Your task to perform on an android device: all mails in gmail Image 0: 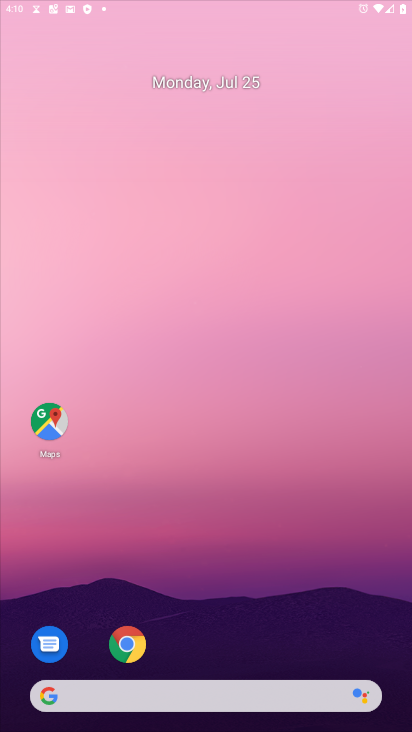
Step 0: press home button
Your task to perform on an android device: all mails in gmail Image 1: 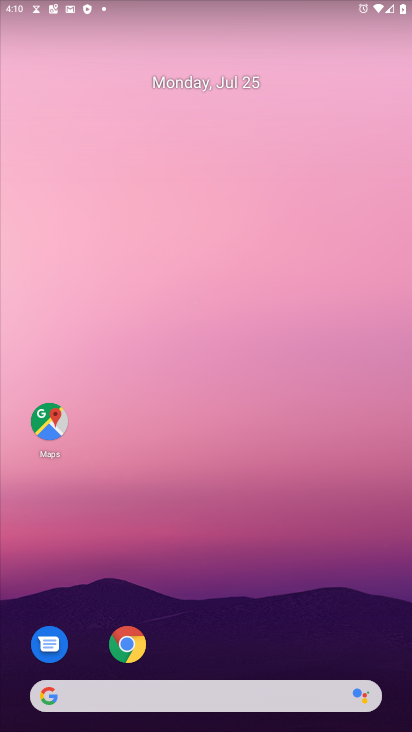
Step 1: press home button
Your task to perform on an android device: all mails in gmail Image 2: 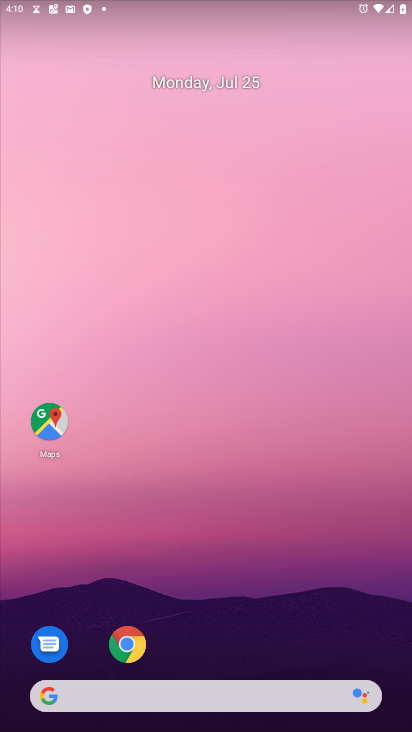
Step 2: drag from (276, 616) to (258, 111)
Your task to perform on an android device: all mails in gmail Image 3: 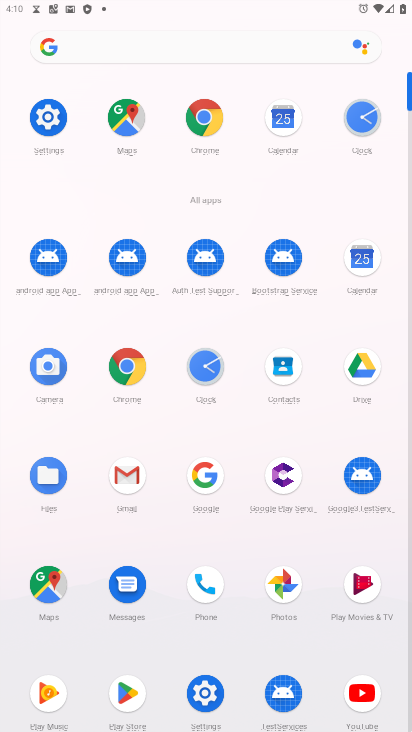
Step 3: click (129, 477)
Your task to perform on an android device: all mails in gmail Image 4: 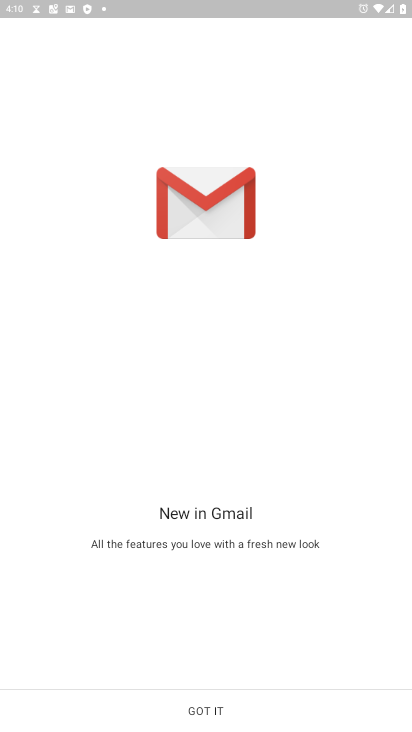
Step 4: click (199, 710)
Your task to perform on an android device: all mails in gmail Image 5: 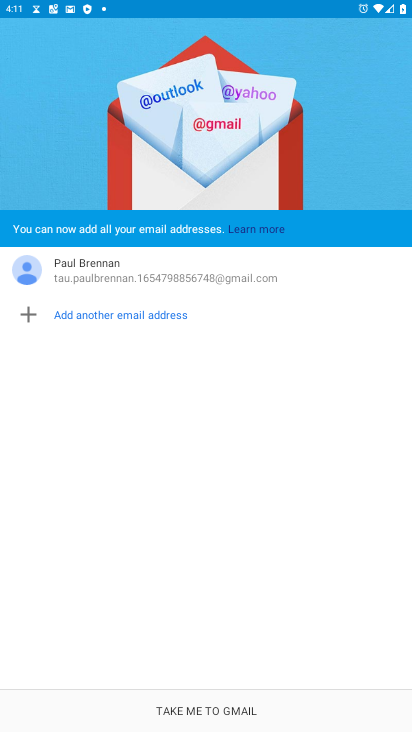
Step 5: click (214, 712)
Your task to perform on an android device: all mails in gmail Image 6: 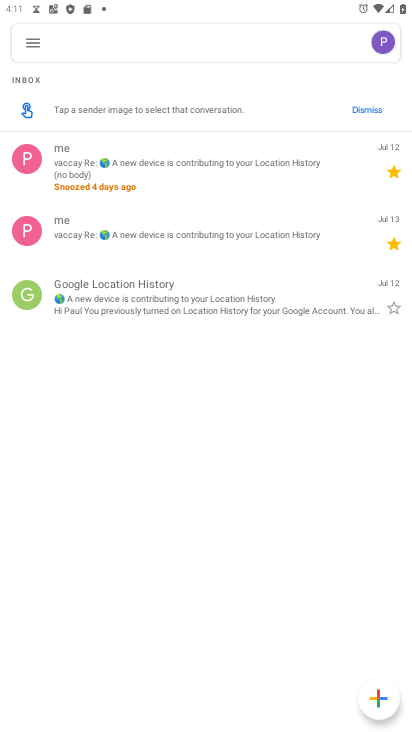
Step 6: click (28, 45)
Your task to perform on an android device: all mails in gmail Image 7: 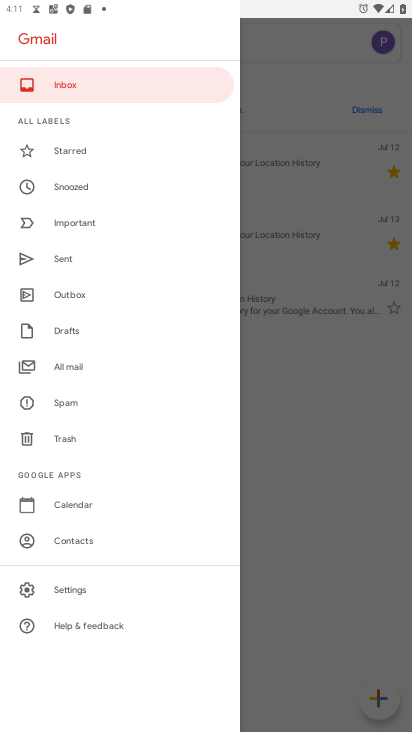
Step 7: click (65, 359)
Your task to perform on an android device: all mails in gmail Image 8: 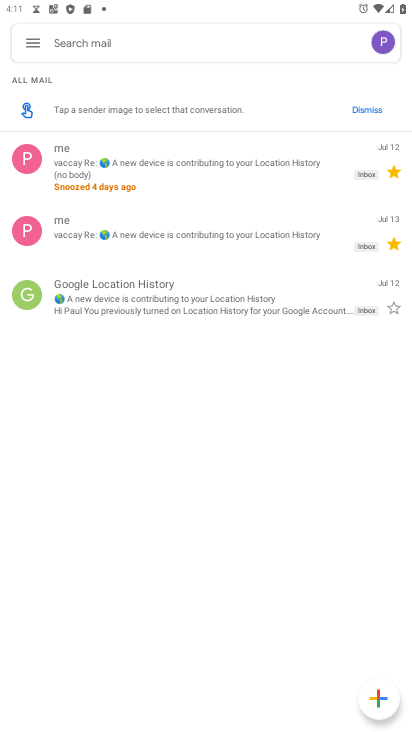
Step 8: task complete